Your task to perform on an android device: turn vacation reply on in the gmail app Image 0: 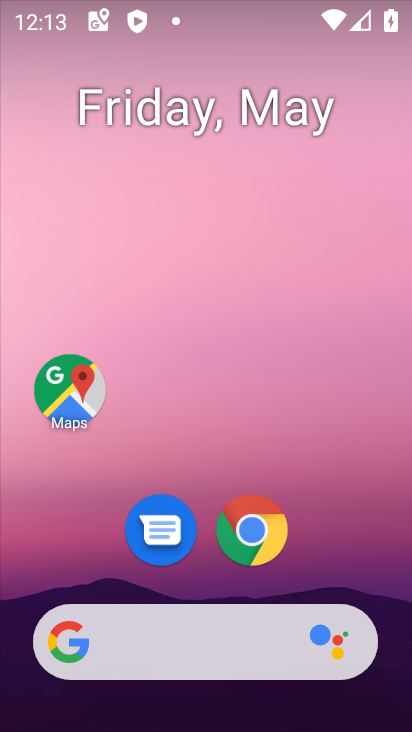
Step 0: drag from (319, 550) to (310, 233)
Your task to perform on an android device: turn vacation reply on in the gmail app Image 1: 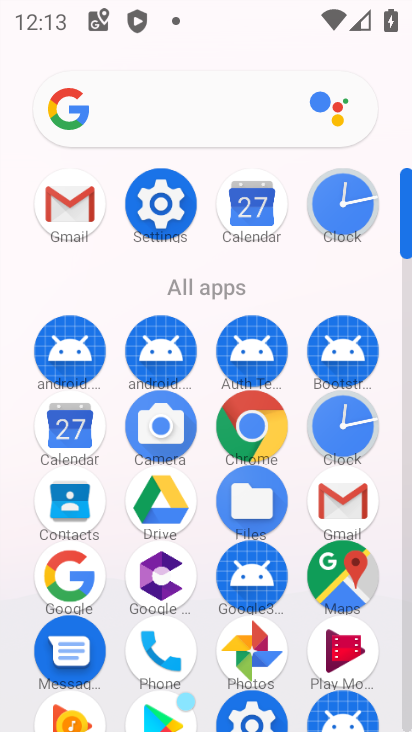
Step 1: click (70, 202)
Your task to perform on an android device: turn vacation reply on in the gmail app Image 2: 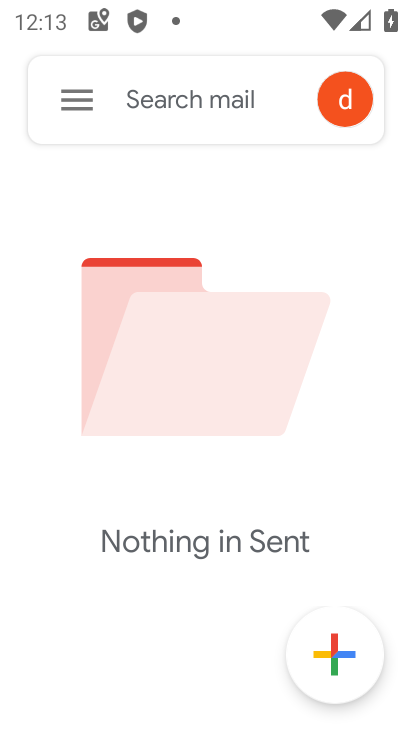
Step 2: click (70, 104)
Your task to perform on an android device: turn vacation reply on in the gmail app Image 3: 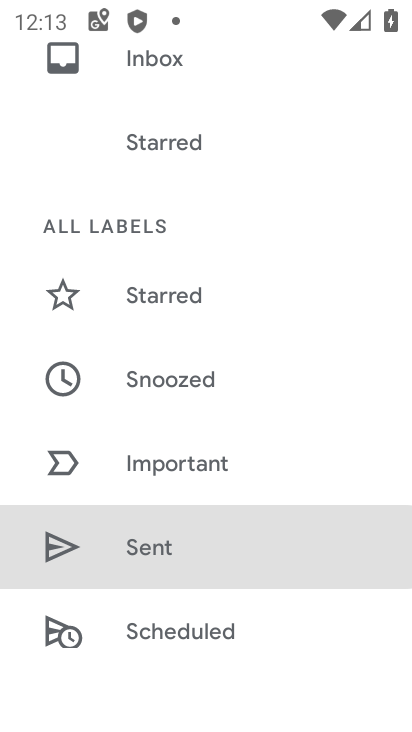
Step 3: drag from (109, 612) to (193, 487)
Your task to perform on an android device: turn vacation reply on in the gmail app Image 4: 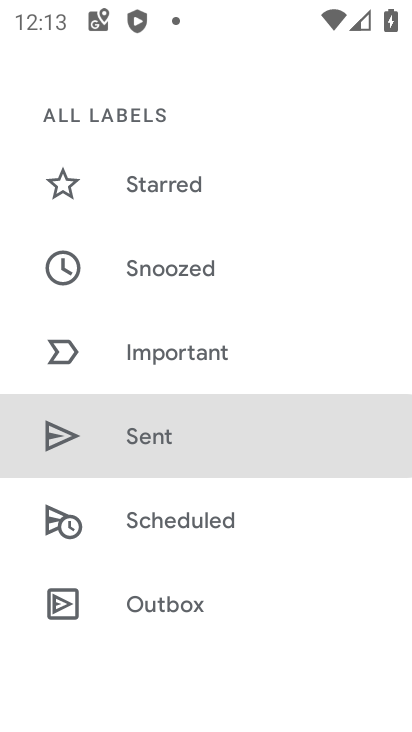
Step 4: drag from (138, 571) to (210, 485)
Your task to perform on an android device: turn vacation reply on in the gmail app Image 5: 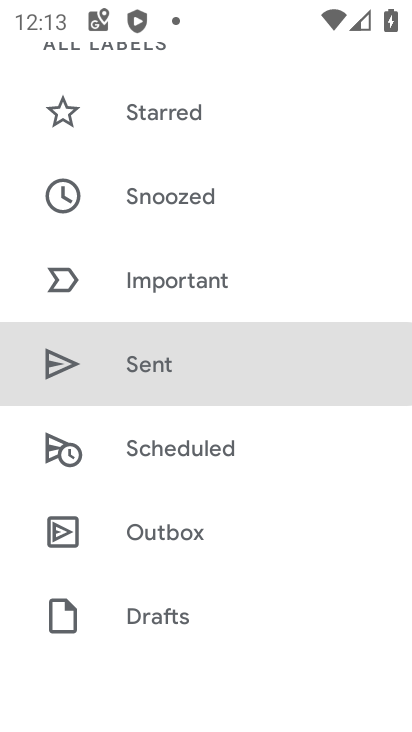
Step 5: drag from (143, 572) to (221, 461)
Your task to perform on an android device: turn vacation reply on in the gmail app Image 6: 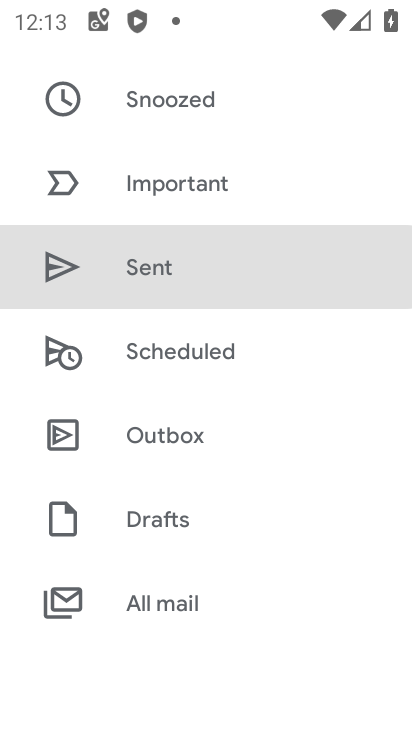
Step 6: drag from (138, 547) to (225, 453)
Your task to perform on an android device: turn vacation reply on in the gmail app Image 7: 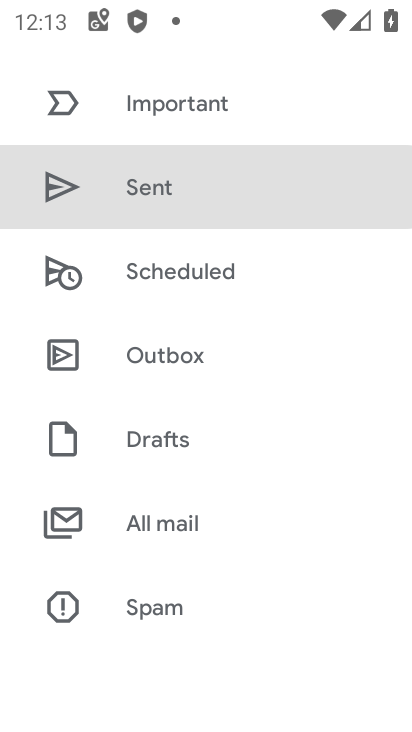
Step 7: drag from (175, 468) to (228, 393)
Your task to perform on an android device: turn vacation reply on in the gmail app Image 8: 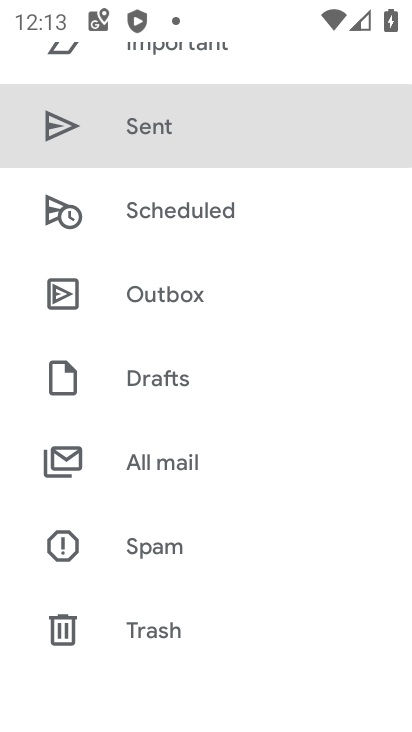
Step 8: drag from (148, 500) to (220, 401)
Your task to perform on an android device: turn vacation reply on in the gmail app Image 9: 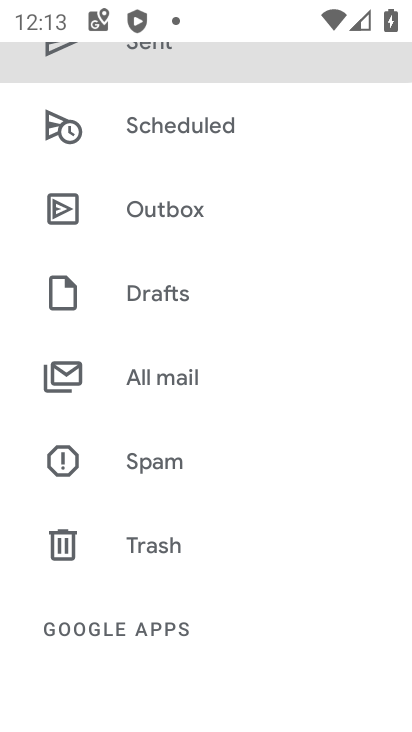
Step 9: drag from (159, 504) to (214, 400)
Your task to perform on an android device: turn vacation reply on in the gmail app Image 10: 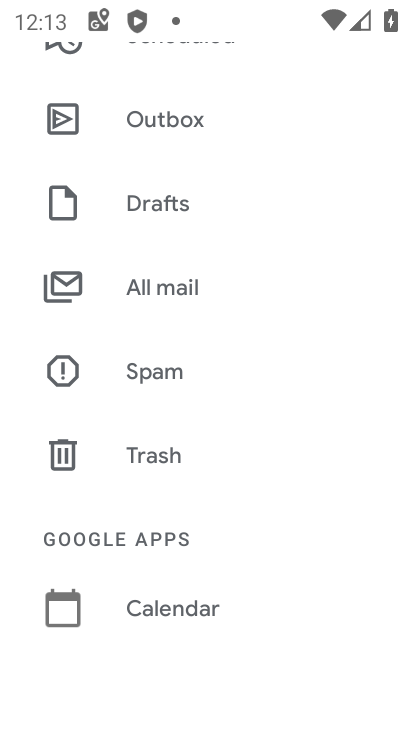
Step 10: drag from (142, 505) to (213, 422)
Your task to perform on an android device: turn vacation reply on in the gmail app Image 11: 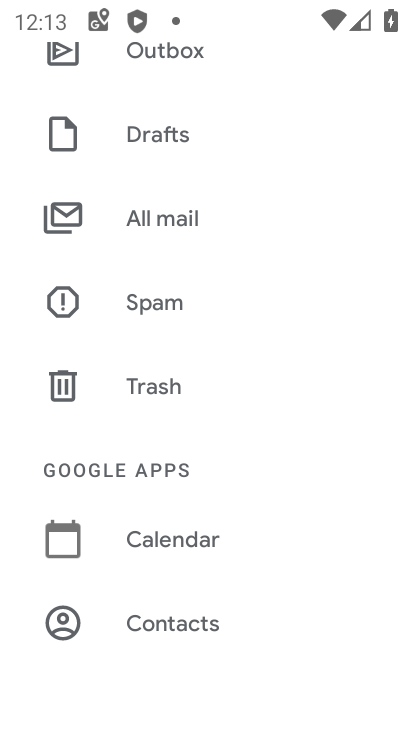
Step 11: drag from (134, 519) to (232, 420)
Your task to perform on an android device: turn vacation reply on in the gmail app Image 12: 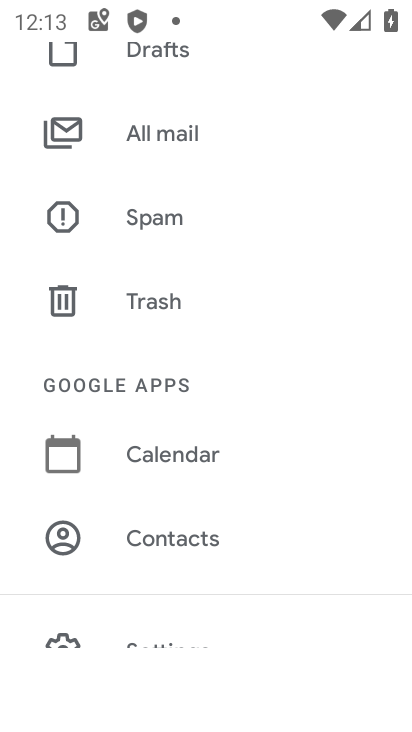
Step 12: drag from (157, 497) to (225, 416)
Your task to perform on an android device: turn vacation reply on in the gmail app Image 13: 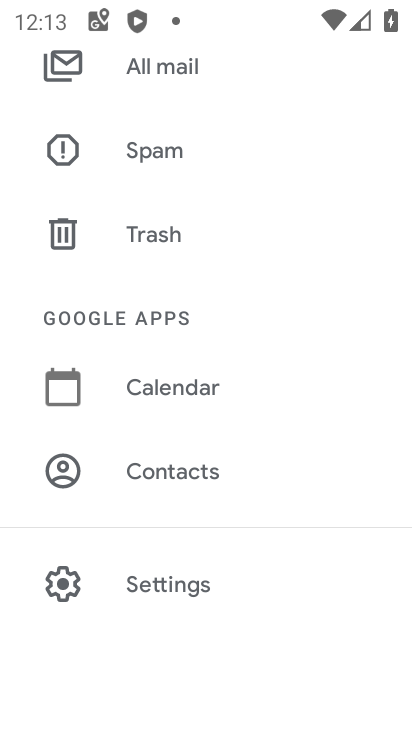
Step 13: drag from (144, 505) to (238, 398)
Your task to perform on an android device: turn vacation reply on in the gmail app Image 14: 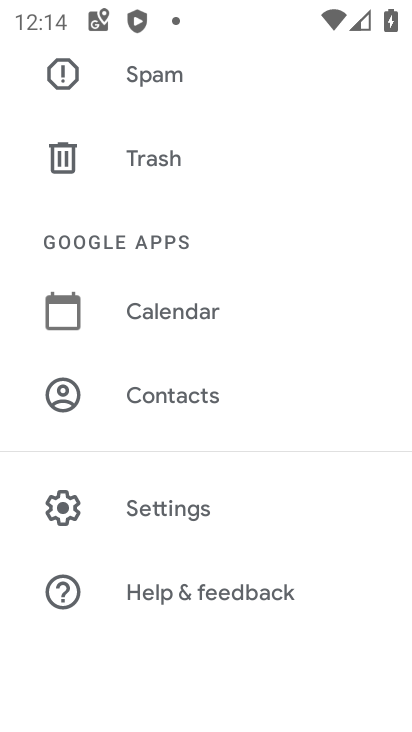
Step 14: click (160, 507)
Your task to perform on an android device: turn vacation reply on in the gmail app Image 15: 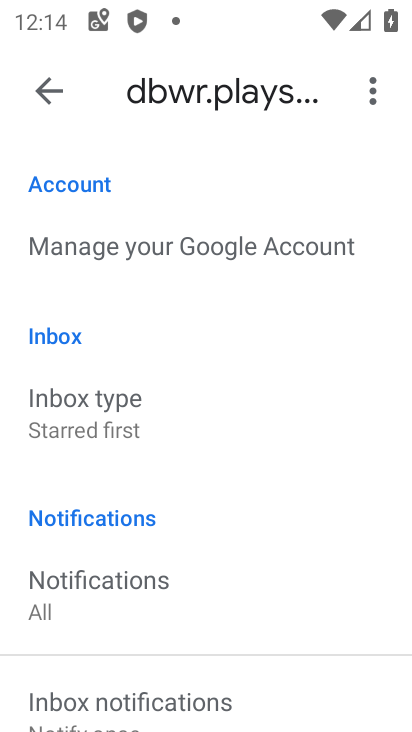
Step 15: drag from (141, 341) to (226, 227)
Your task to perform on an android device: turn vacation reply on in the gmail app Image 16: 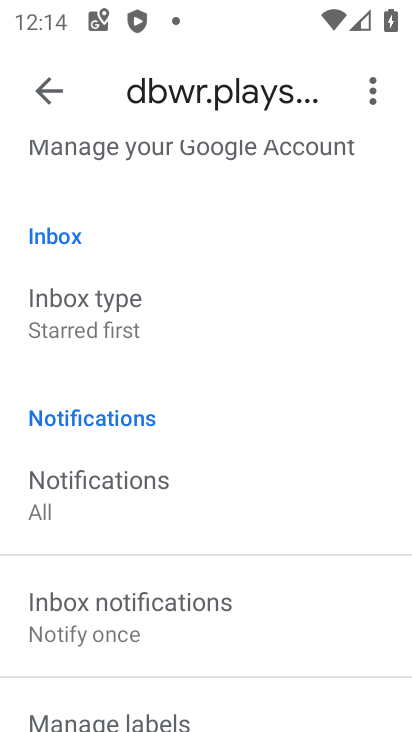
Step 16: drag from (143, 376) to (229, 279)
Your task to perform on an android device: turn vacation reply on in the gmail app Image 17: 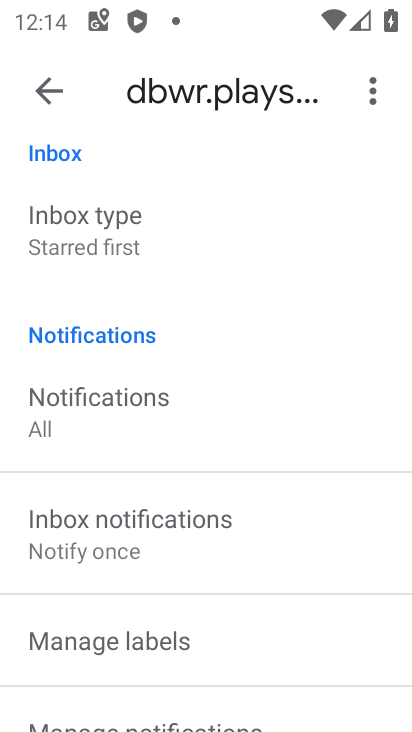
Step 17: drag from (124, 371) to (214, 274)
Your task to perform on an android device: turn vacation reply on in the gmail app Image 18: 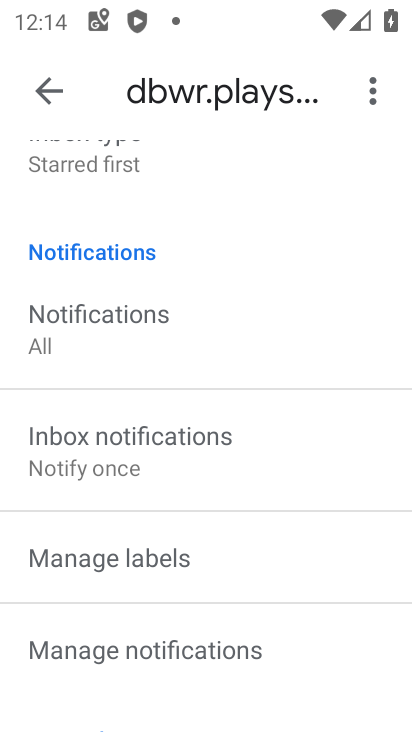
Step 18: drag from (117, 412) to (212, 298)
Your task to perform on an android device: turn vacation reply on in the gmail app Image 19: 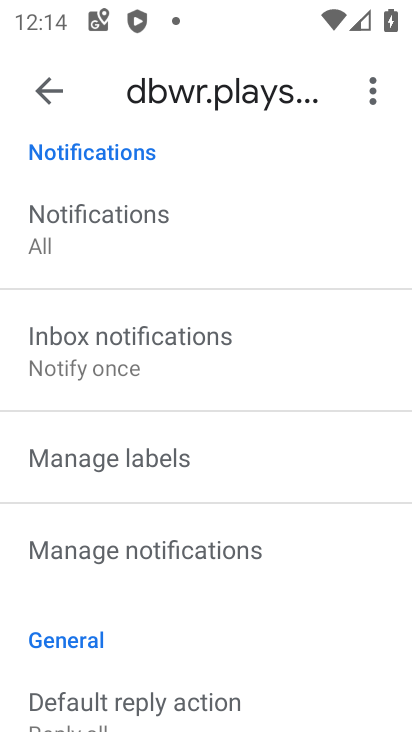
Step 19: drag from (105, 433) to (201, 319)
Your task to perform on an android device: turn vacation reply on in the gmail app Image 20: 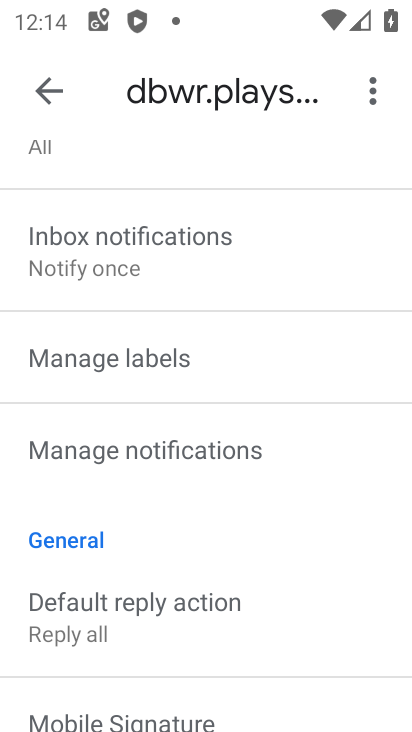
Step 20: drag from (103, 490) to (202, 374)
Your task to perform on an android device: turn vacation reply on in the gmail app Image 21: 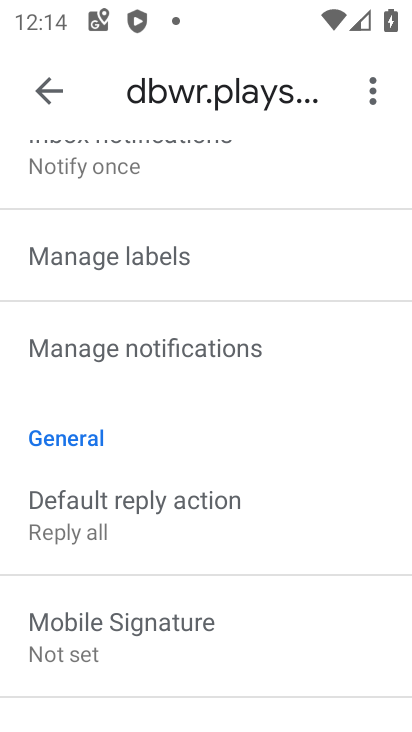
Step 21: drag from (136, 540) to (174, 413)
Your task to perform on an android device: turn vacation reply on in the gmail app Image 22: 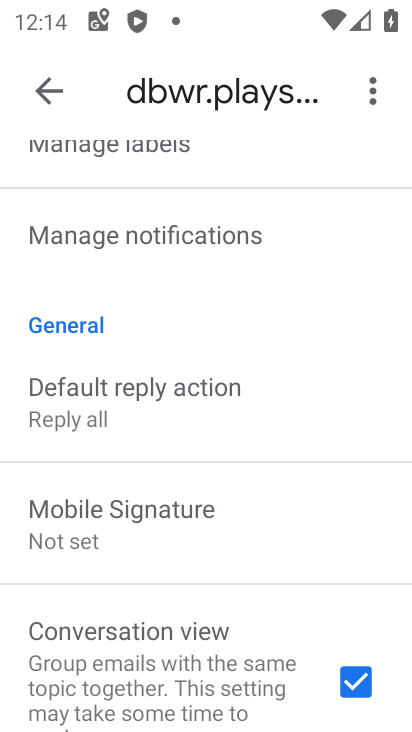
Step 22: drag from (98, 489) to (180, 381)
Your task to perform on an android device: turn vacation reply on in the gmail app Image 23: 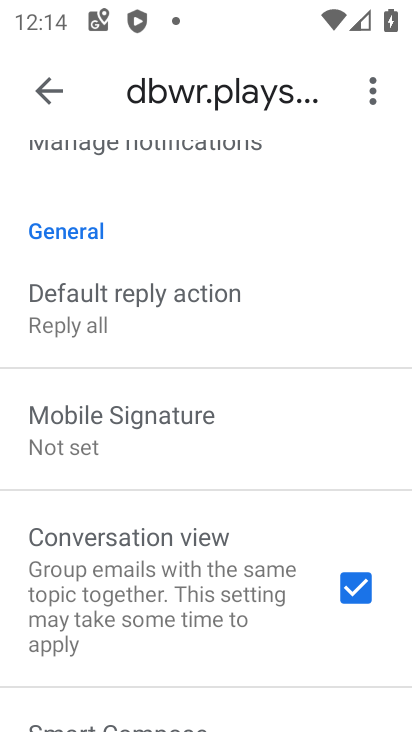
Step 23: drag from (81, 511) to (181, 385)
Your task to perform on an android device: turn vacation reply on in the gmail app Image 24: 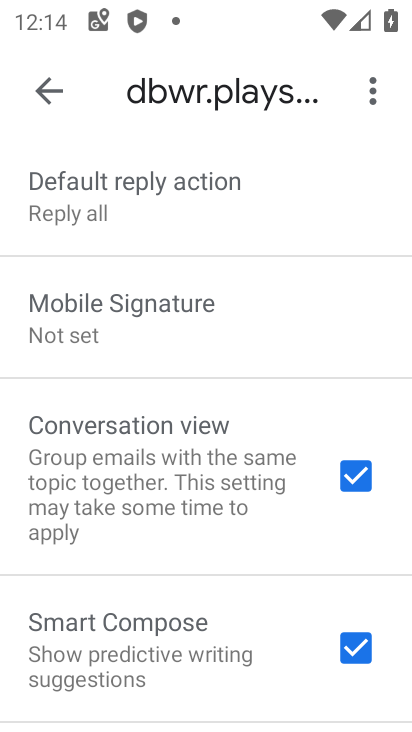
Step 24: drag from (95, 552) to (199, 418)
Your task to perform on an android device: turn vacation reply on in the gmail app Image 25: 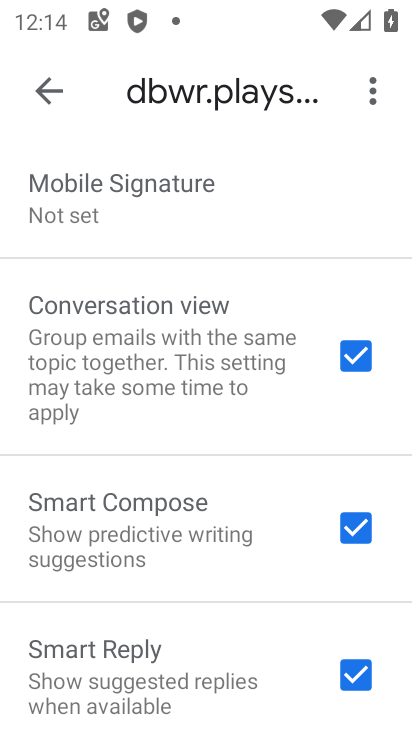
Step 25: drag from (113, 480) to (180, 386)
Your task to perform on an android device: turn vacation reply on in the gmail app Image 26: 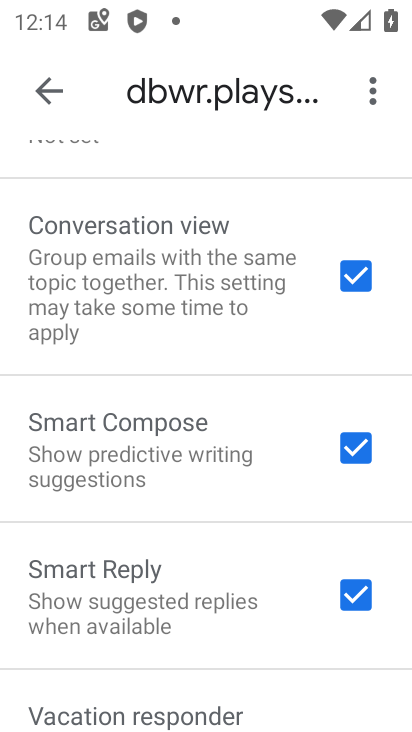
Step 26: drag from (114, 554) to (212, 432)
Your task to perform on an android device: turn vacation reply on in the gmail app Image 27: 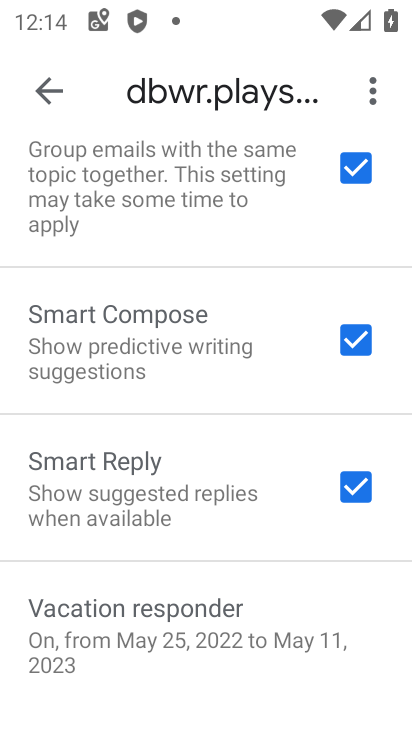
Step 27: click (153, 618)
Your task to perform on an android device: turn vacation reply on in the gmail app Image 28: 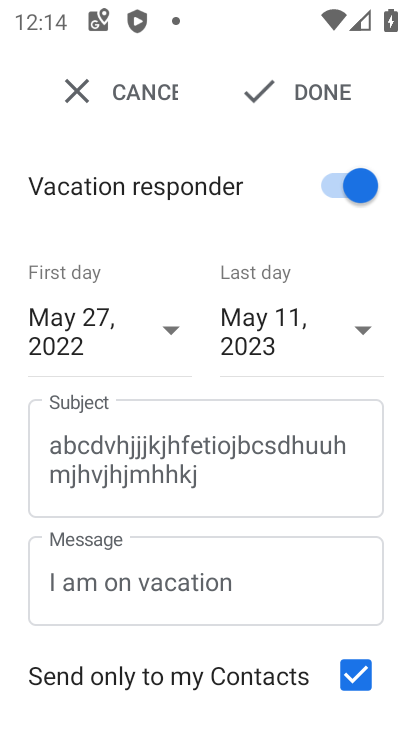
Step 28: task complete